Your task to perform on an android device: Open Wikipedia Image 0: 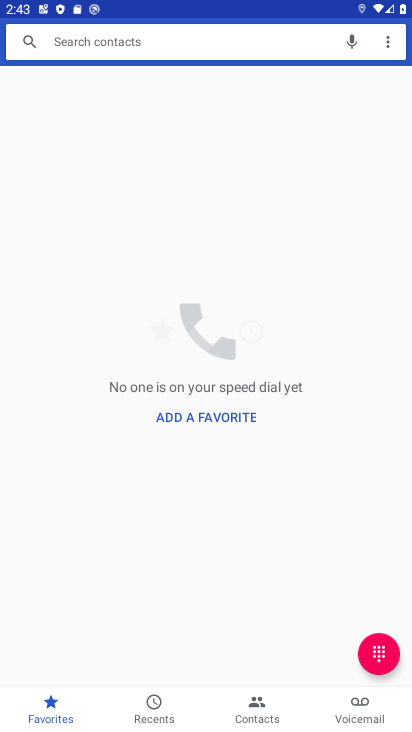
Step 0: press home button
Your task to perform on an android device: Open Wikipedia Image 1: 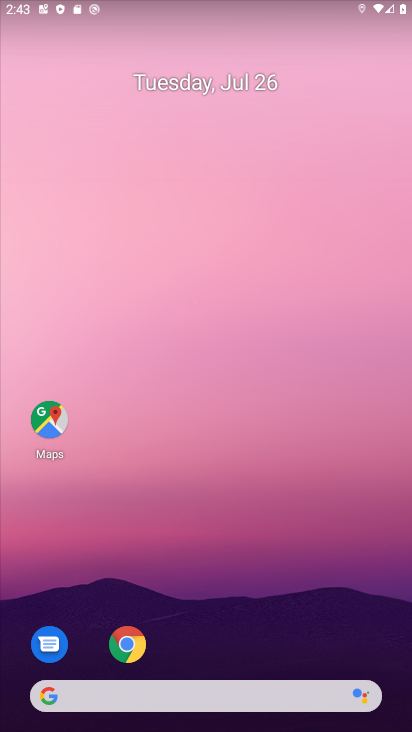
Step 1: click (44, 691)
Your task to perform on an android device: Open Wikipedia Image 2: 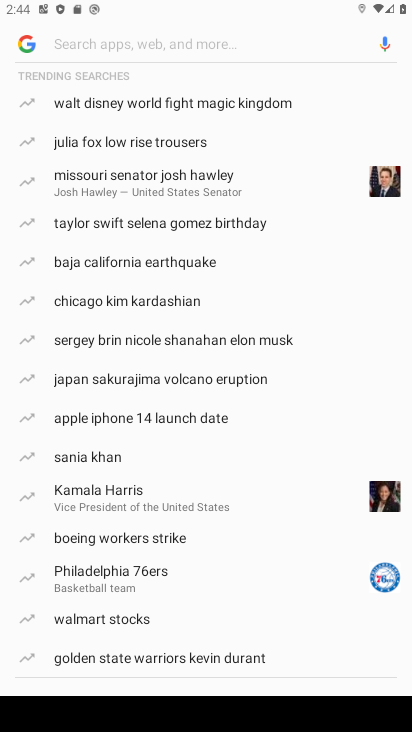
Step 2: type "Wikipedia"
Your task to perform on an android device: Open Wikipedia Image 3: 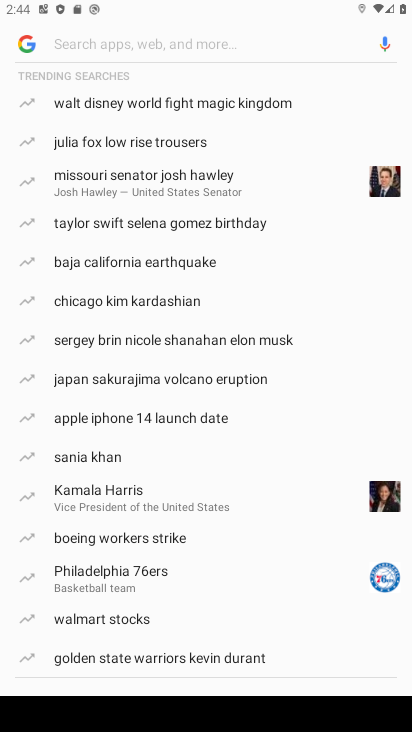
Step 3: click (68, 40)
Your task to perform on an android device: Open Wikipedia Image 4: 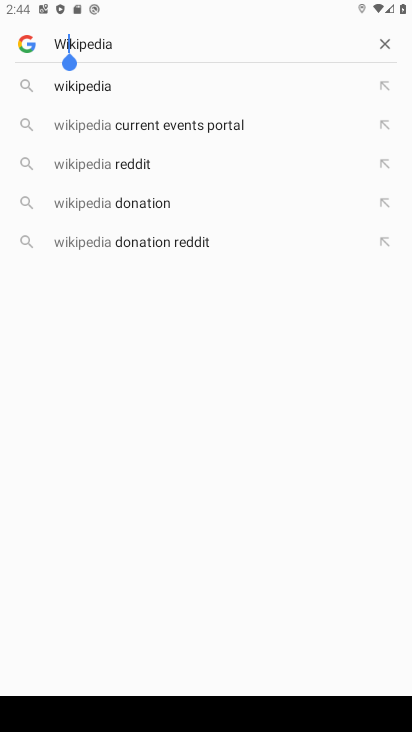
Step 4: click (89, 85)
Your task to perform on an android device: Open Wikipedia Image 5: 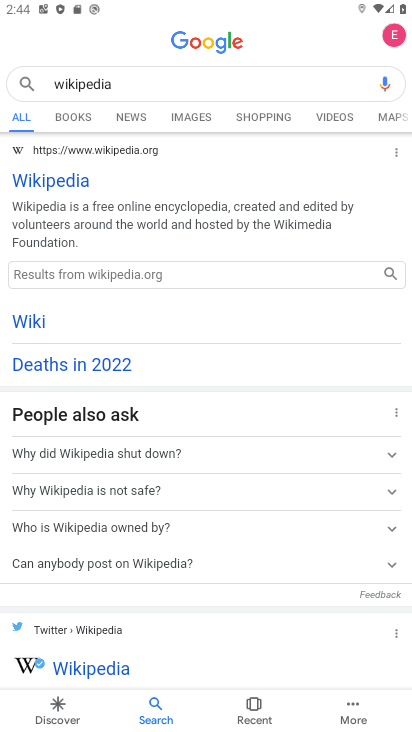
Step 5: click (51, 183)
Your task to perform on an android device: Open Wikipedia Image 6: 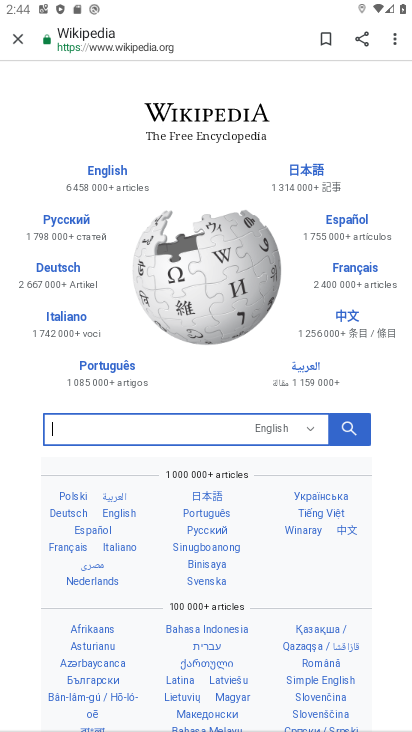
Step 6: task complete